Your task to perform on an android device: Open accessibility settings Image 0: 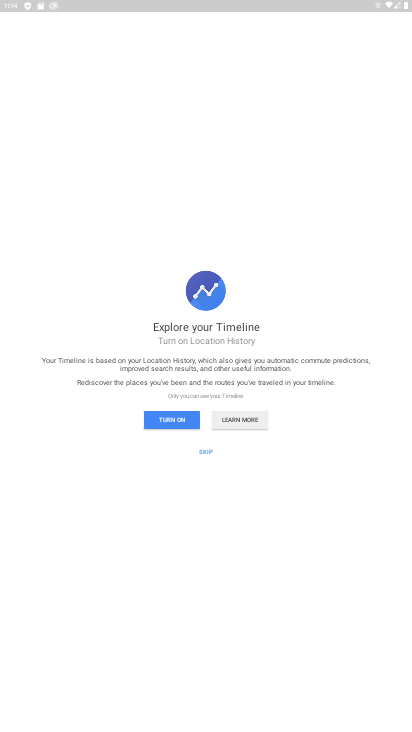
Step 0: press home button
Your task to perform on an android device: Open accessibility settings Image 1: 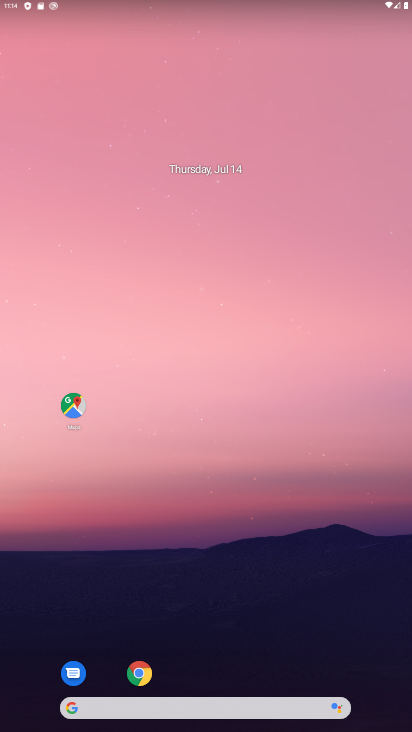
Step 1: drag from (381, 682) to (229, 42)
Your task to perform on an android device: Open accessibility settings Image 2: 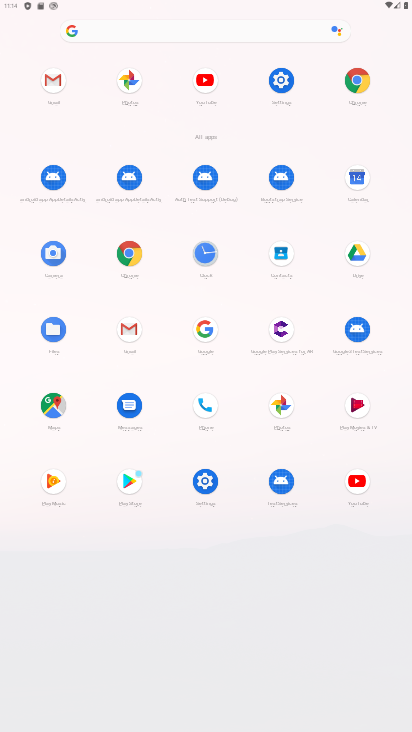
Step 2: click (207, 485)
Your task to perform on an android device: Open accessibility settings Image 3: 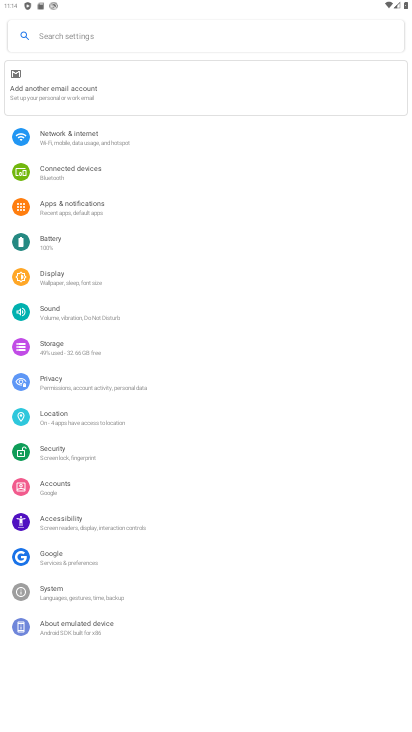
Step 3: click (78, 527)
Your task to perform on an android device: Open accessibility settings Image 4: 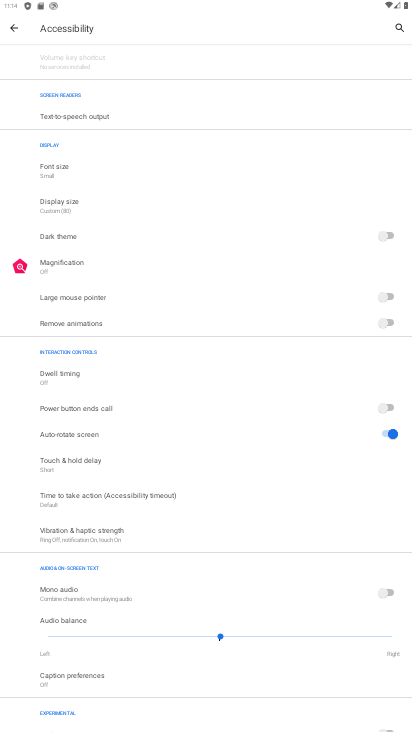
Step 4: task complete